Your task to perform on an android device: see sites visited before in the chrome app Image 0: 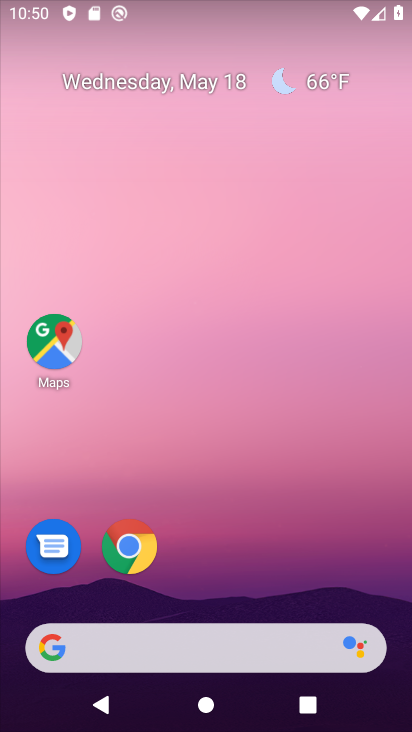
Step 0: click (130, 549)
Your task to perform on an android device: see sites visited before in the chrome app Image 1: 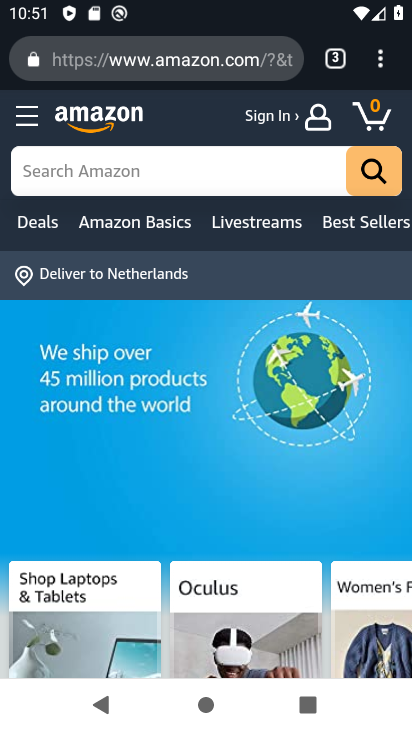
Step 1: click (380, 69)
Your task to perform on an android device: see sites visited before in the chrome app Image 2: 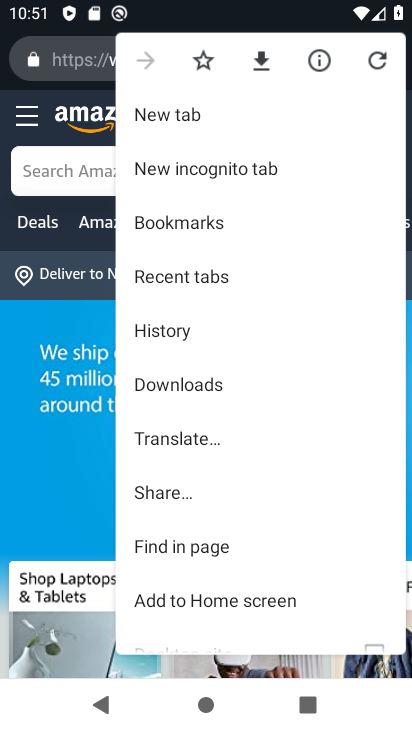
Step 2: drag from (214, 569) to (230, 328)
Your task to perform on an android device: see sites visited before in the chrome app Image 3: 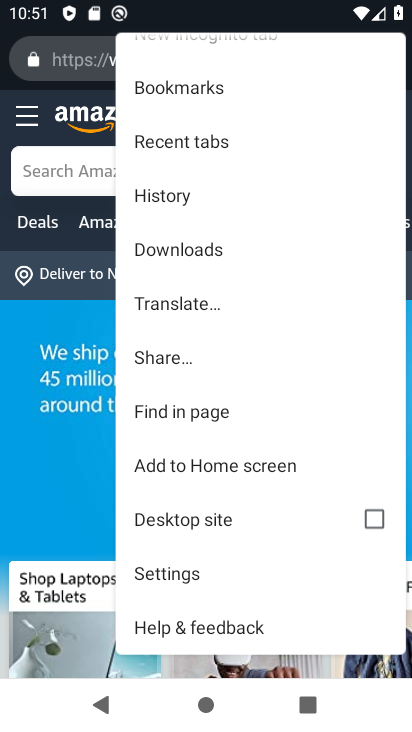
Step 3: click (168, 195)
Your task to perform on an android device: see sites visited before in the chrome app Image 4: 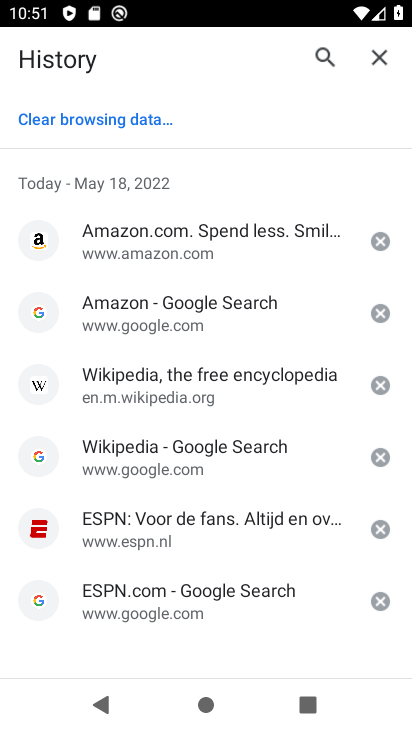
Step 4: task complete